Your task to perform on an android device: create a new album in the google photos Image 0: 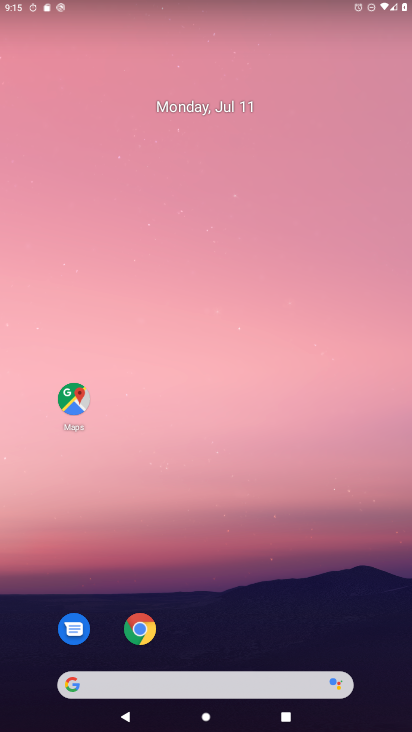
Step 0: drag from (228, 622) to (254, 120)
Your task to perform on an android device: create a new album in the google photos Image 1: 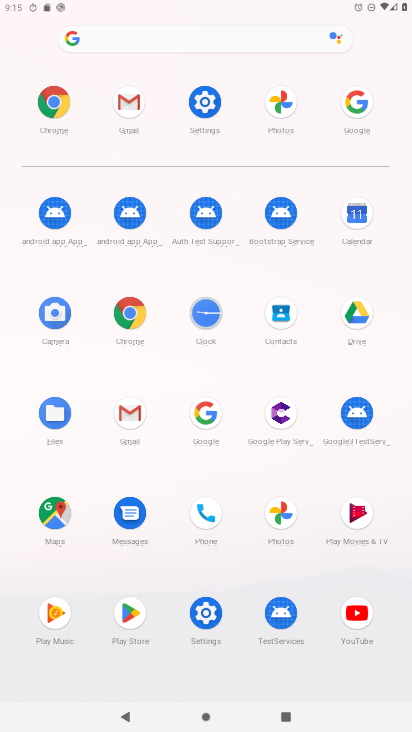
Step 1: click (285, 508)
Your task to perform on an android device: create a new album in the google photos Image 2: 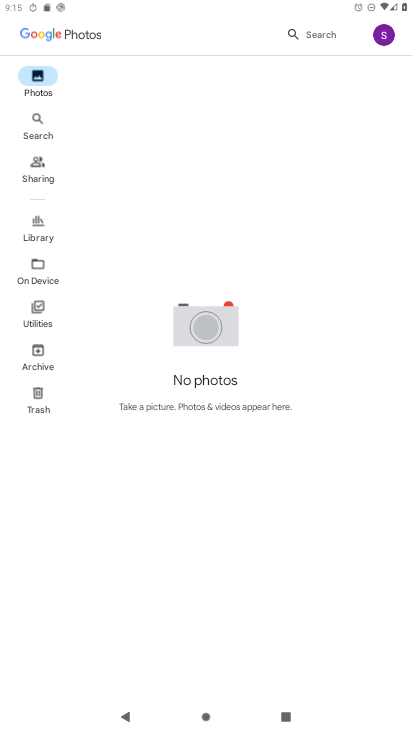
Step 2: click (37, 226)
Your task to perform on an android device: create a new album in the google photos Image 3: 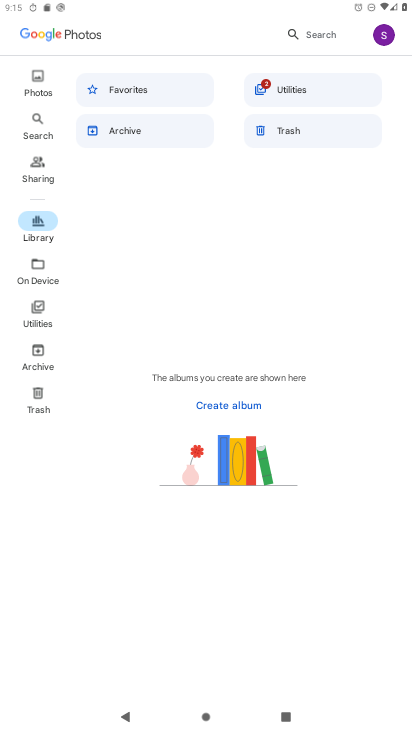
Step 3: click (215, 410)
Your task to perform on an android device: create a new album in the google photos Image 4: 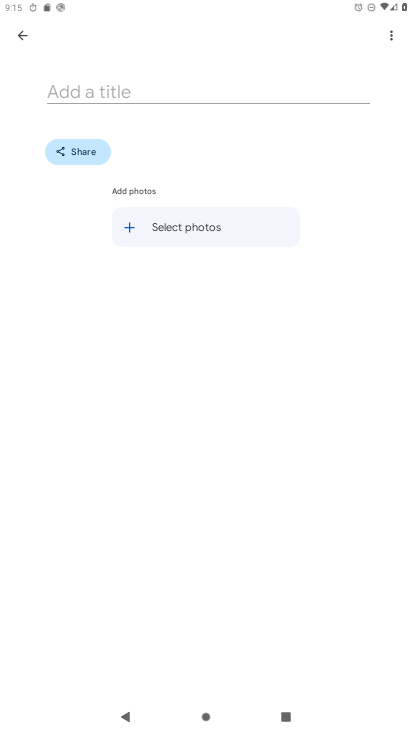
Step 4: task complete